Your task to perform on an android device: Open sound settings Image 0: 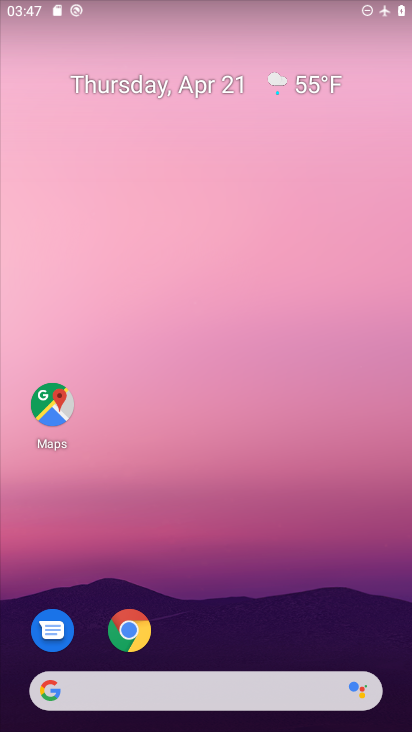
Step 0: drag from (315, 622) to (274, 258)
Your task to perform on an android device: Open sound settings Image 1: 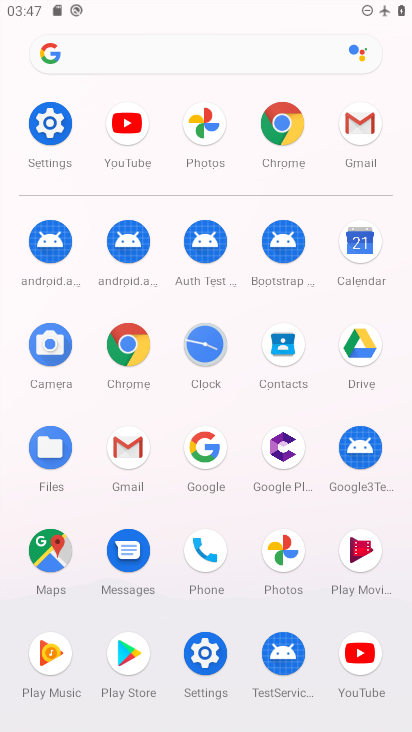
Step 1: click (208, 642)
Your task to perform on an android device: Open sound settings Image 2: 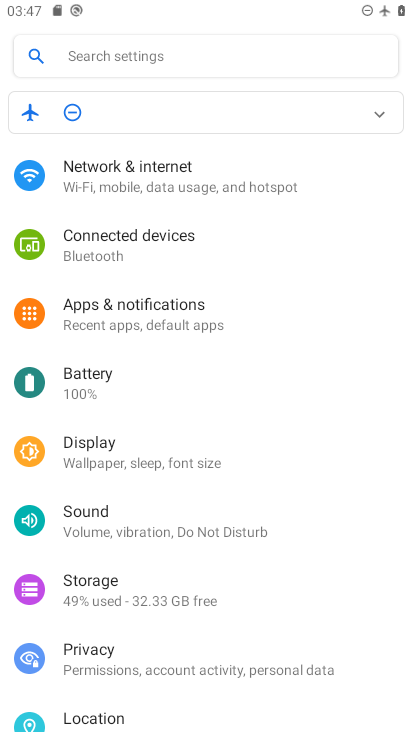
Step 2: click (184, 512)
Your task to perform on an android device: Open sound settings Image 3: 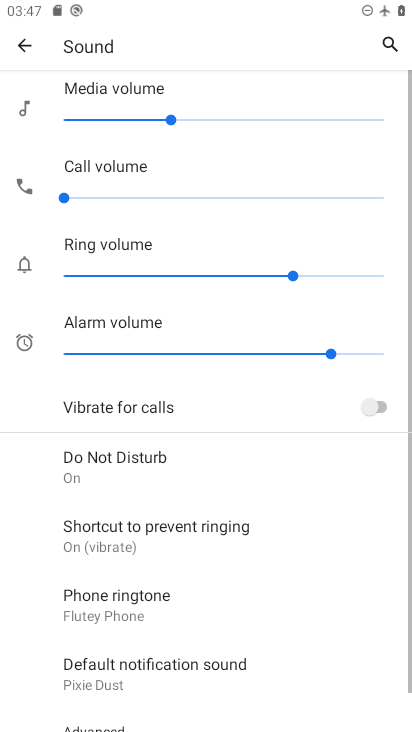
Step 3: task complete